Your task to perform on an android device: turn on airplane mode Image 0: 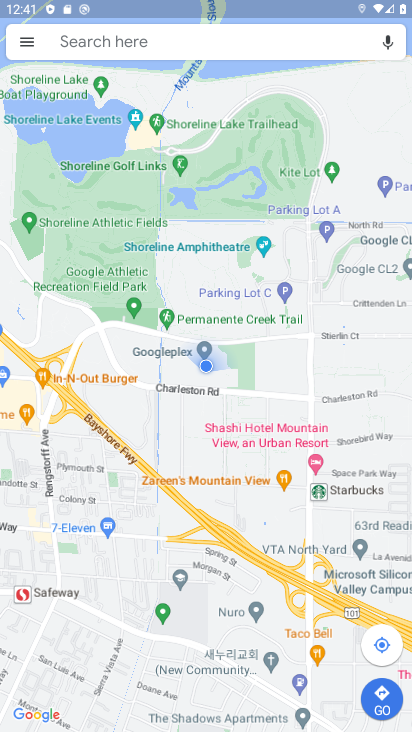
Step 0: drag from (343, 0) to (187, 728)
Your task to perform on an android device: turn on airplane mode Image 1: 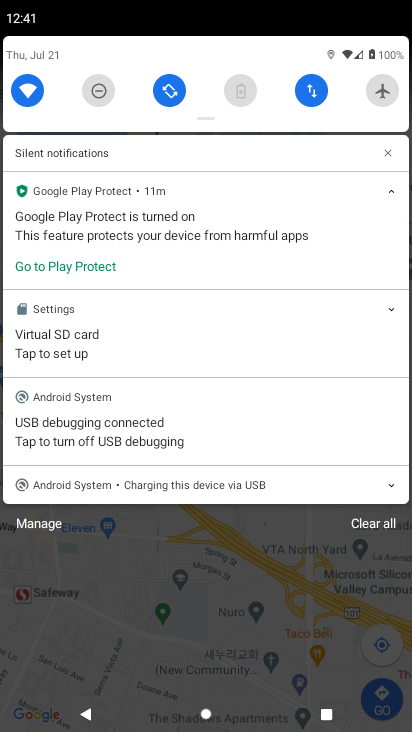
Step 1: click (383, 86)
Your task to perform on an android device: turn on airplane mode Image 2: 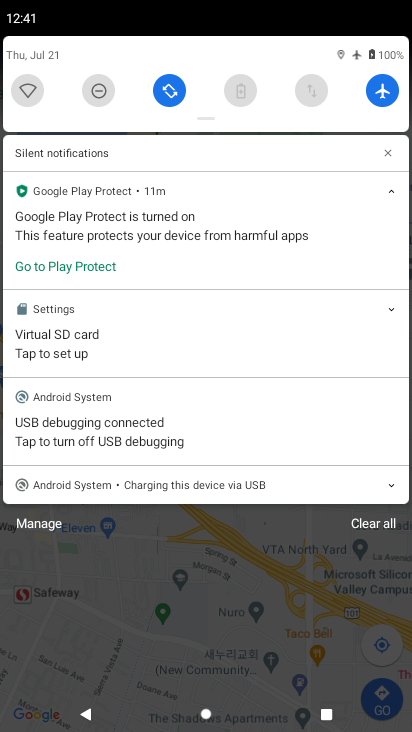
Step 2: task complete